Your task to perform on an android device: Search for vegetarian restaurants on Maps Image 0: 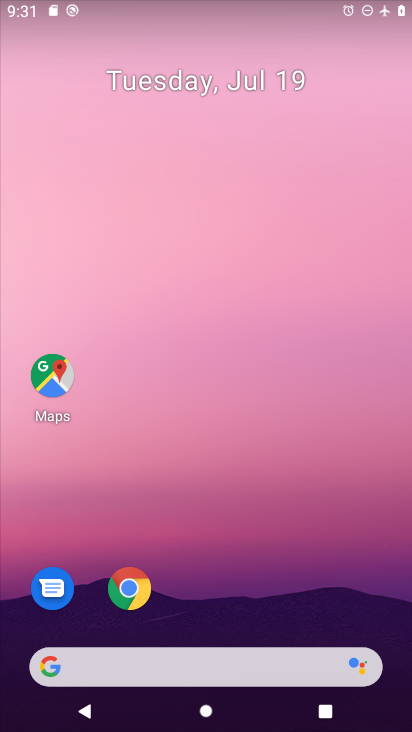
Step 0: drag from (352, 592) to (363, 40)
Your task to perform on an android device: Search for vegetarian restaurants on Maps Image 1: 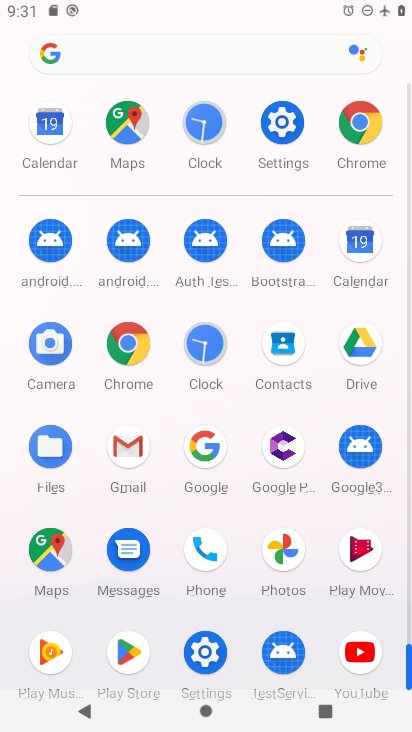
Step 1: click (135, 123)
Your task to perform on an android device: Search for vegetarian restaurants on Maps Image 2: 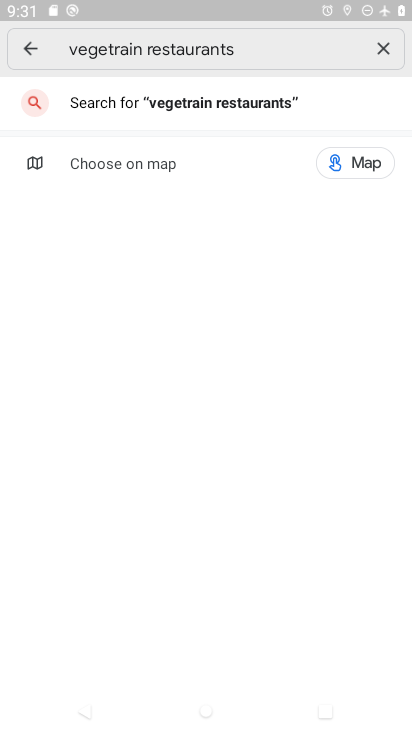
Step 2: task complete